Your task to perform on an android device: Show me the alarms in the clock app Image 0: 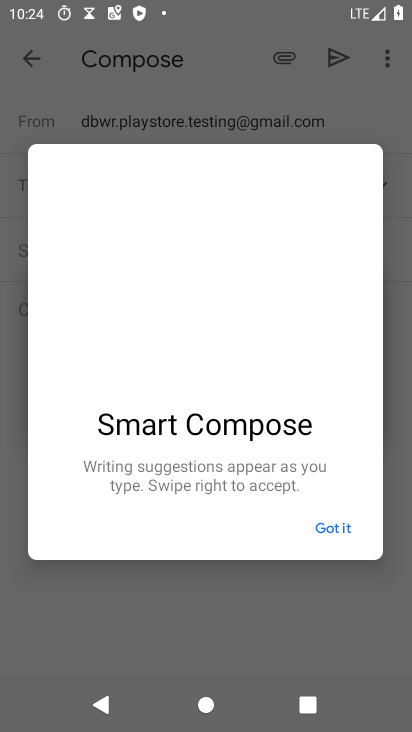
Step 0: press home button
Your task to perform on an android device: Show me the alarms in the clock app Image 1: 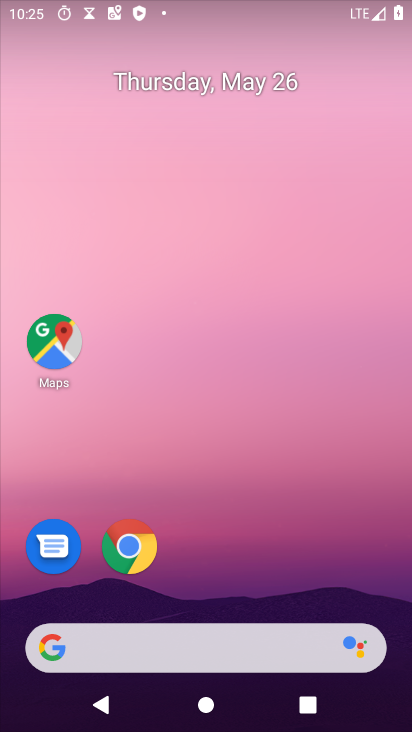
Step 1: drag from (340, 559) to (331, 160)
Your task to perform on an android device: Show me the alarms in the clock app Image 2: 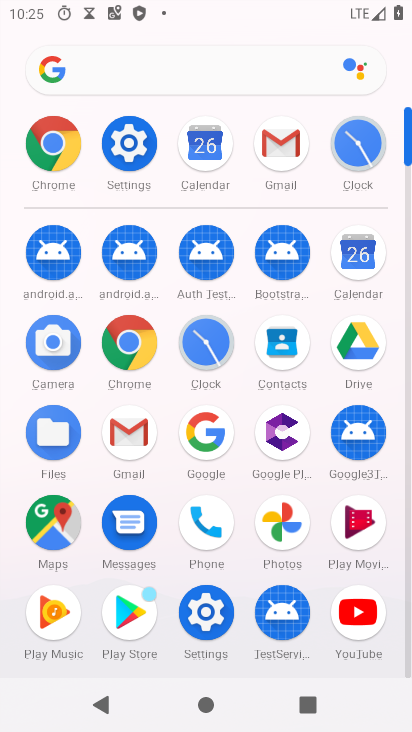
Step 2: click (205, 339)
Your task to perform on an android device: Show me the alarms in the clock app Image 3: 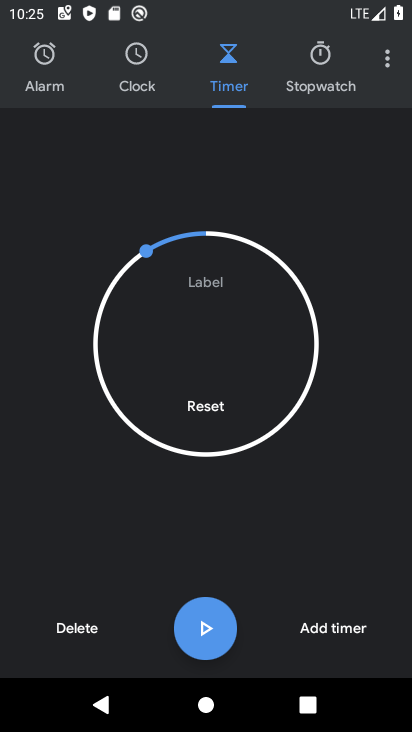
Step 3: click (52, 73)
Your task to perform on an android device: Show me the alarms in the clock app Image 4: 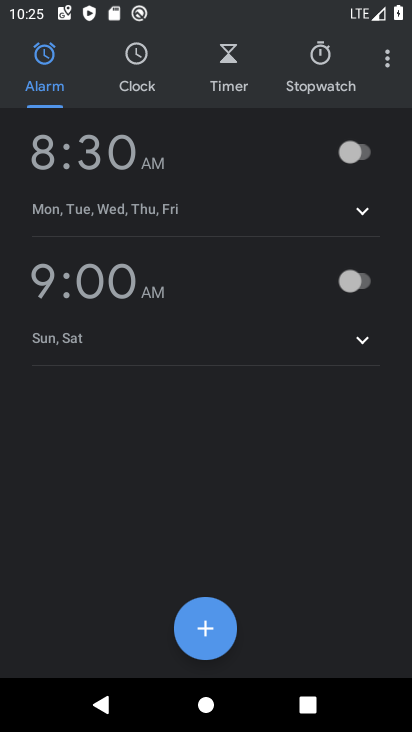
Step 4: task complete